Your task to perform on an android device: toggle wifi Image 0: 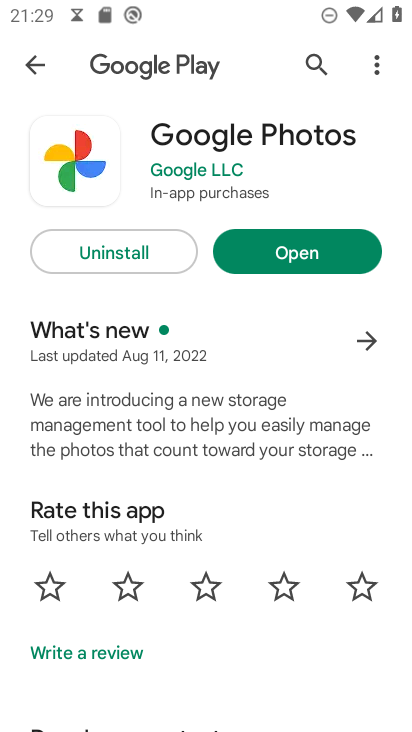
Step 0: press home button
Your task to perform on an android device: toggle wifi Image 1: 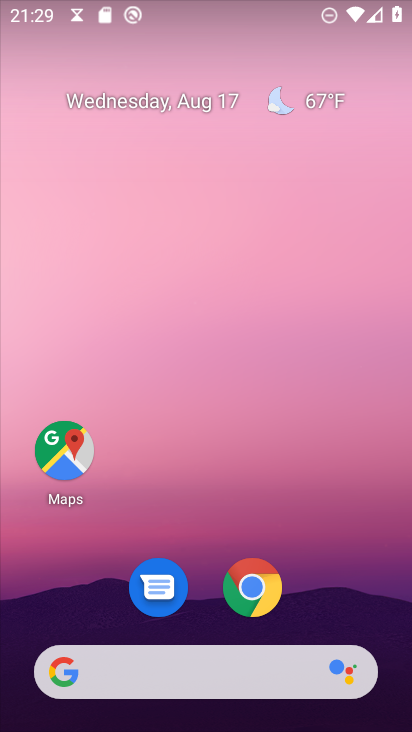
Step 1: drag from (18, 702) to (331, 121)
Your task to perform on an android device: toggle wifi Image 2: 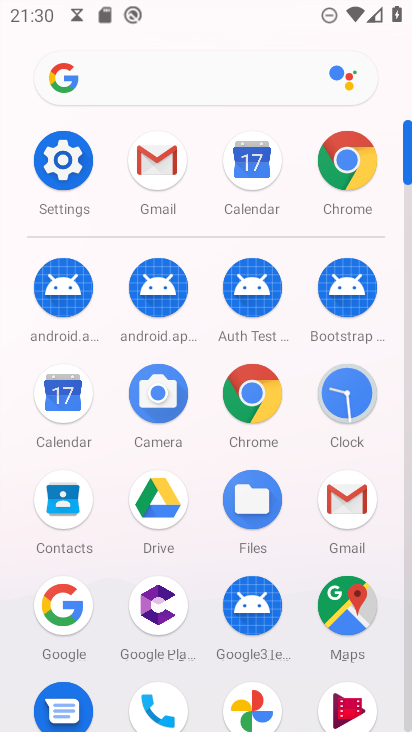
Step 2: click (50, 146)
Your task to perform on an android device: toggle wifi Image 3: 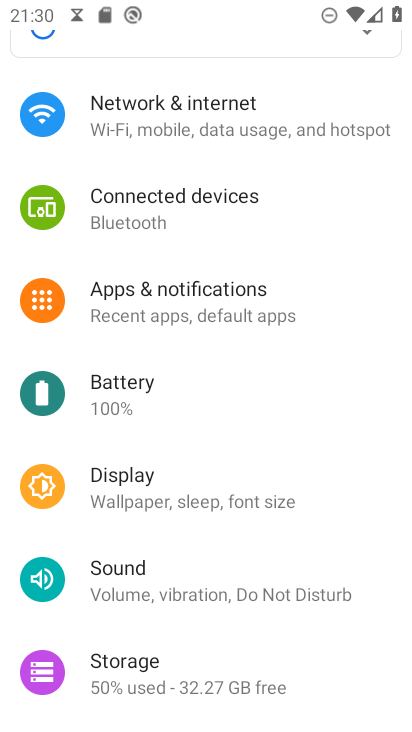
Step 3: click (199, 103)
Your task to perform on an android device: toggle wifi Image 4: 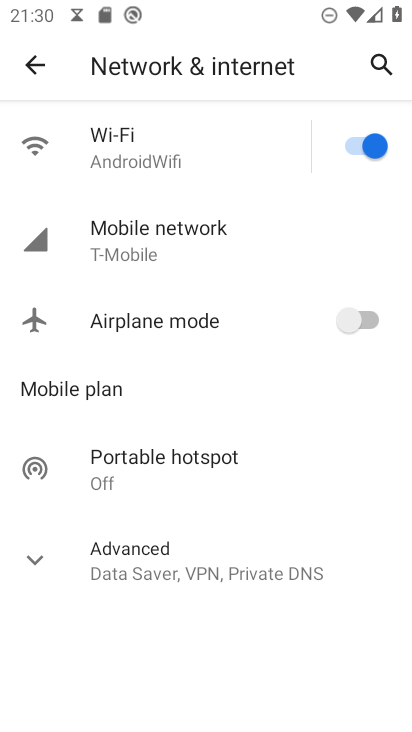
Step 4: task complete